Your task to perform on an android device: Turn on the flashlight Image 0: 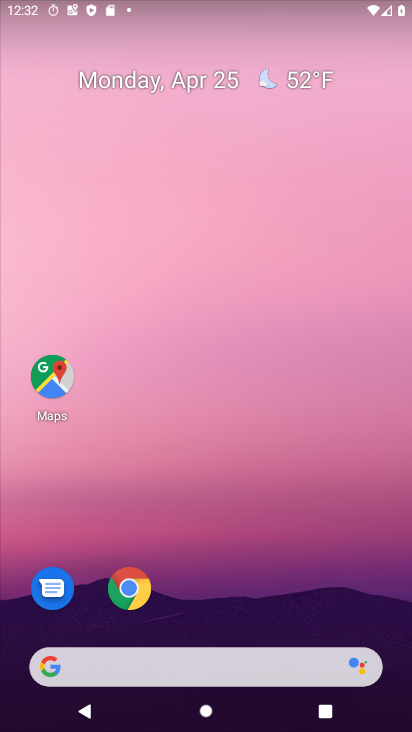
Step 0: drag from (331, 4) to (207, 567)
Your task to perform on an android device: Turn on the flashlight Image 1: 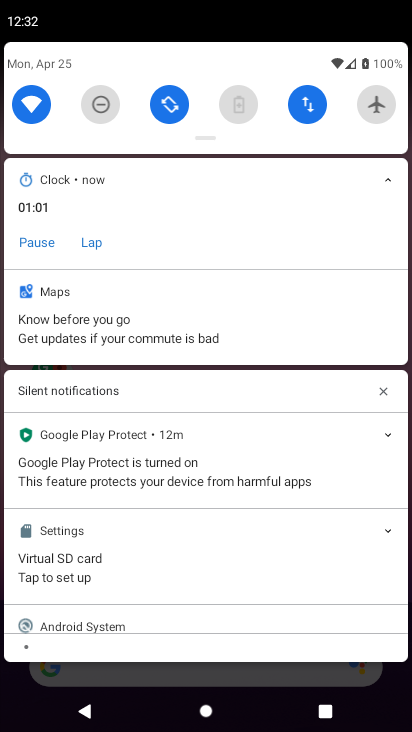
Step 1: task complete